Your task to perform on an android device: Open calendar and show me the fourth week of next month Image 0: 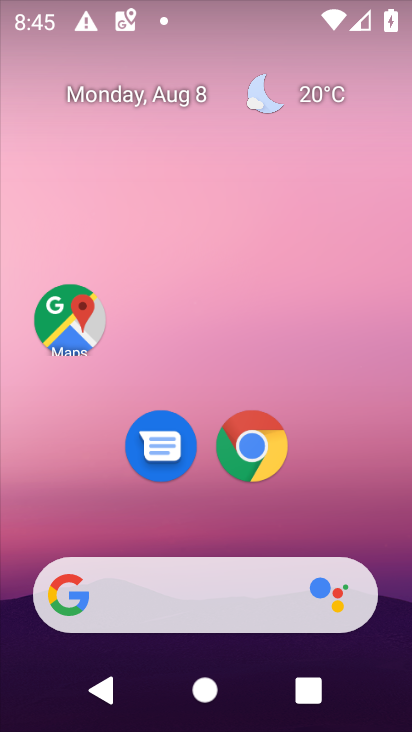
Step 0: drag from (392, 641) to (319, 151)
Your task to perform on an android device: Open calendar and show me the fourth week of next month Image 1: 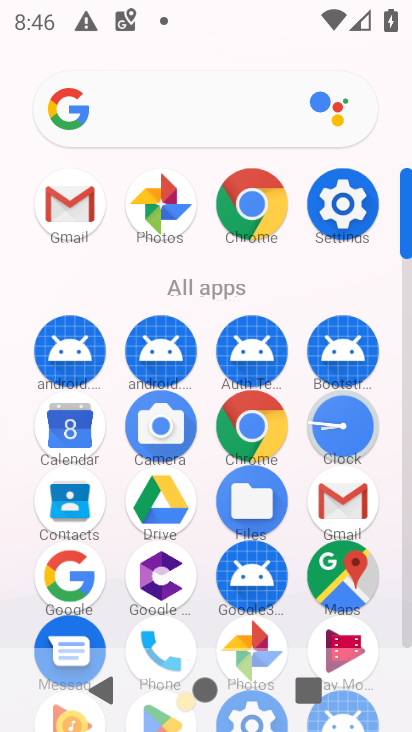
Step 1: click (65, 428)
Your task to perform on an android device: Open calendar and show me the fourth week of next month Image 2: 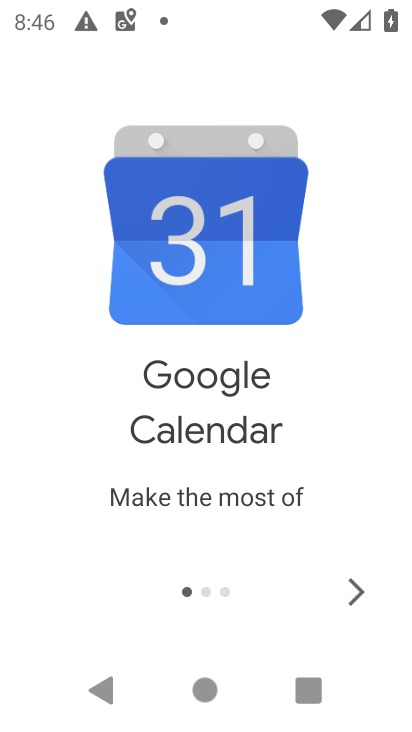
Step 2: click (356, 590)
Your task to perform on an android device: Open calendar and show me the fourth week of next month Image 3: 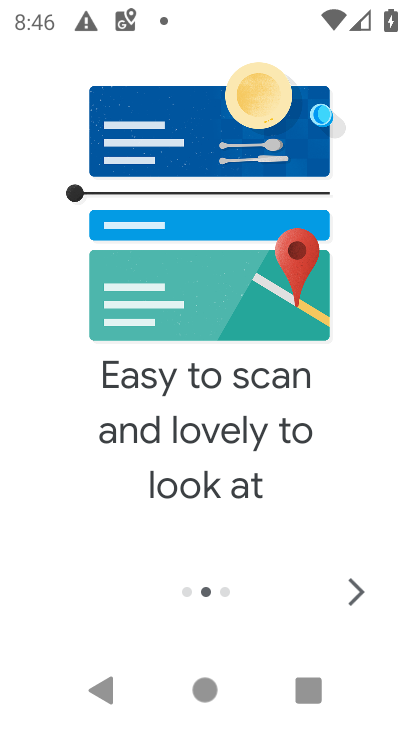
Step 3: click (356, 590)
Your task to perform on an android device: Open calendar and show me the fourth week of next month Image 4: 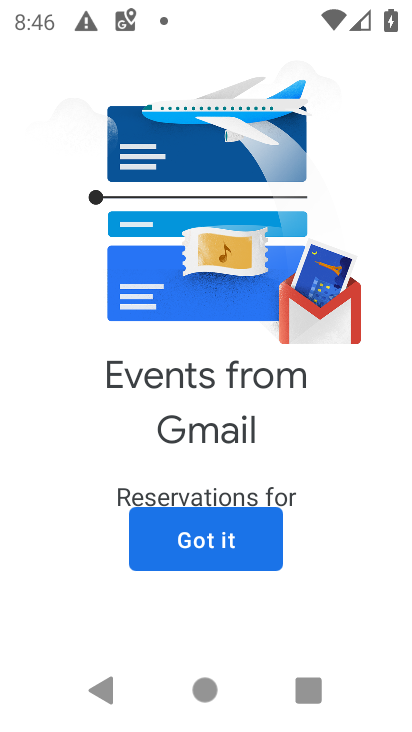
Step 4: click (195, 539)
Your task to perform on an android device: Open calendar and show me the fourth week of next month Image 5: 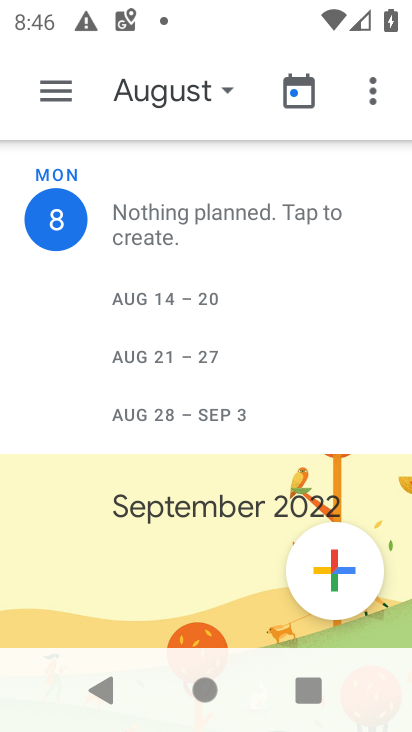
Step 5: click (31, 90)
Your task to perform on an android device: Open calendar and show me the fourth week of next month Image 6: 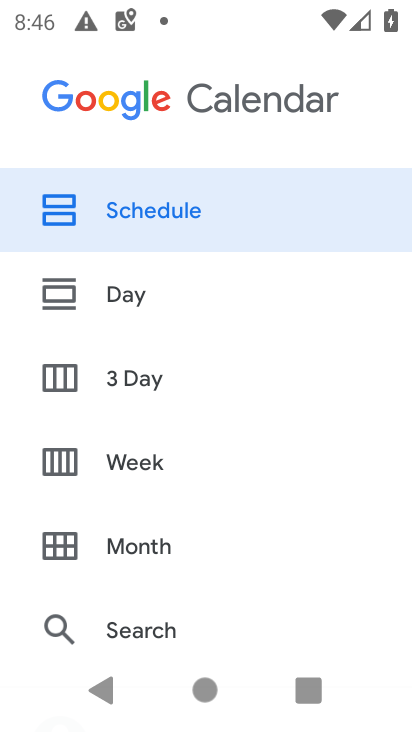
Step 6: click (151, 453)
Your task to perform on an android device: Open calendar and show me the fourth week of next month Image 7: 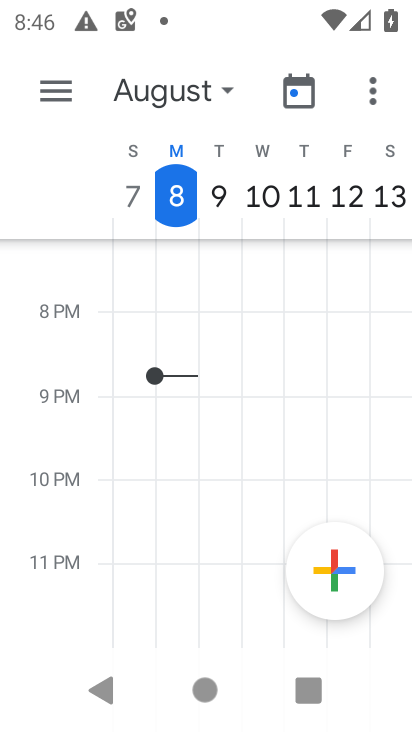
Step 7: click (225, 93)
Your task to perform on an android device: Open calendar and show me the fourth week of next month Image 8: 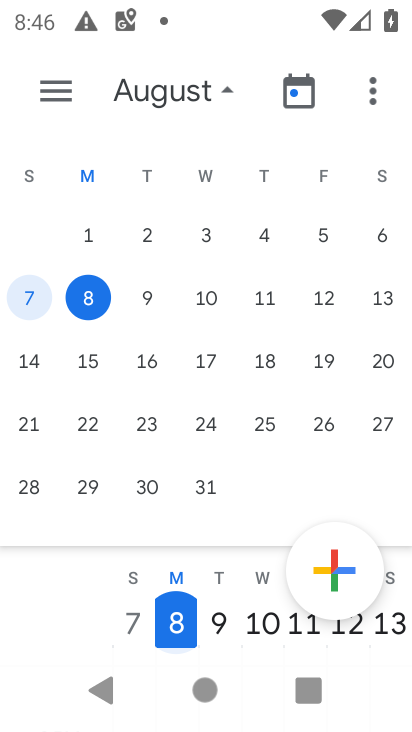
Step 8: drag from (390, 397) to (9, 347)
Your task to perform on an android device: Open calendar and show me the fourth week of next month Image 9: 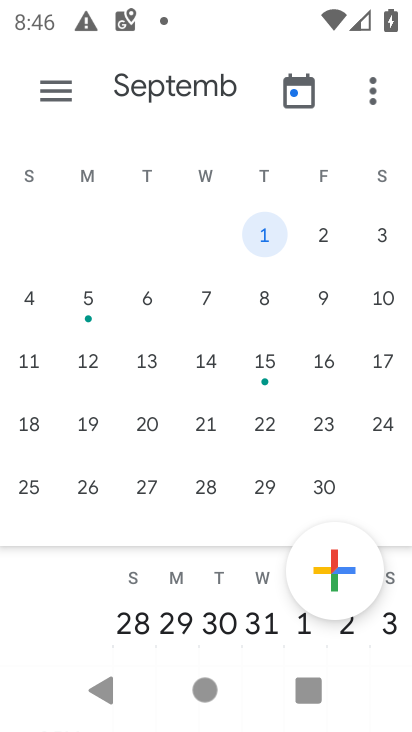
Step 9: click (26, 492)
Your task to perform on an android device: Open calendar and show me the fourth week of next month Image 10: 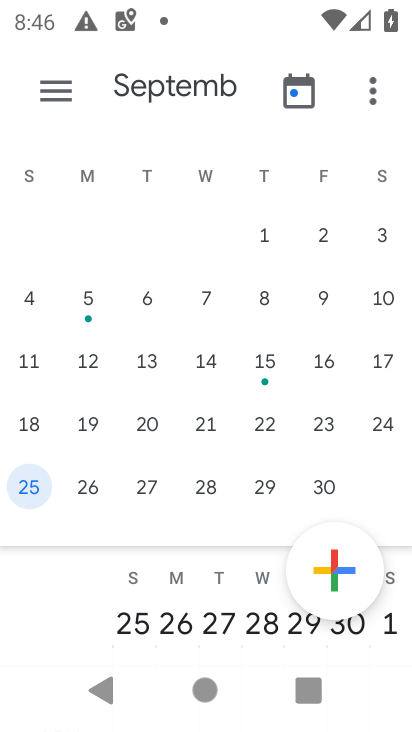
Step 10: task complete